Your task to perform on an android device: turn on the 12-hour format for clock Image 0: 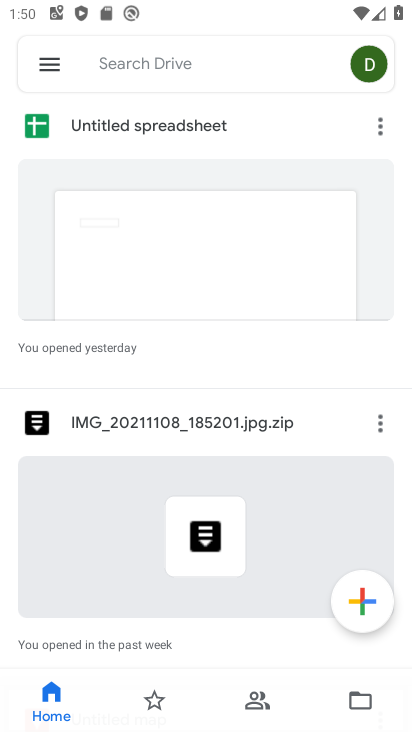
Step 0: press home button
Your task to perform on an android device: turn on the 12-hour format for clock Image 1: 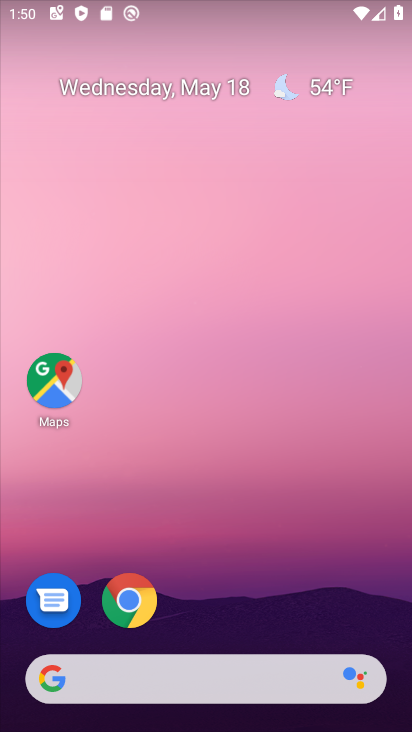
Step 1: drag from (241, 630) to (173, 153)
Your task to perform on an android device: turn on the 12-hour format for clock Image 2: 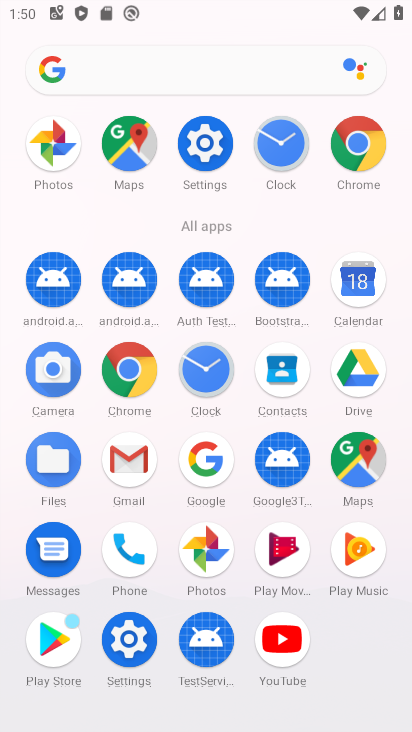
Step 2: click (265, 165)
Your task to perform on an android device: turn on the 12-hour format for clock Image 3: 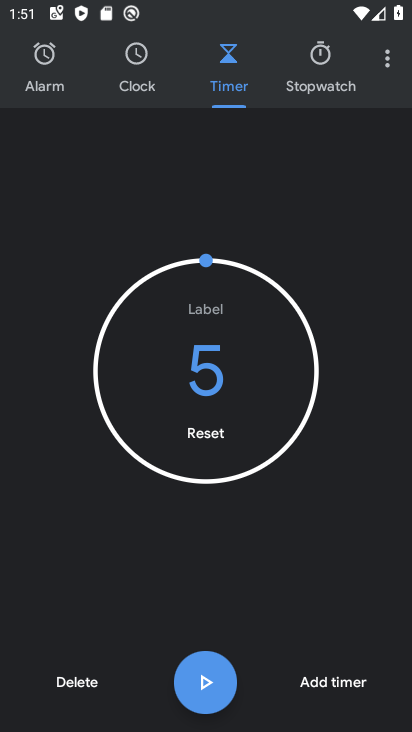
Step 3: click (377, 60)
Your task to perform on an android device: turn on the 12-hour format for clock Image 4: 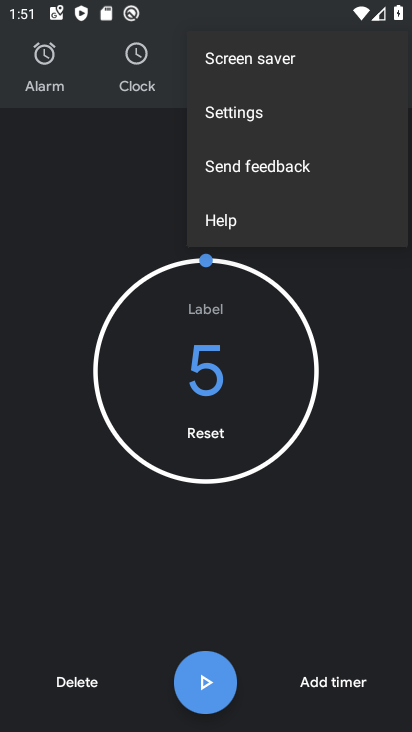
Step 4: click (245, 119)
Your task to perform on an android device: turn on the 12-hour format for clock Image 5: 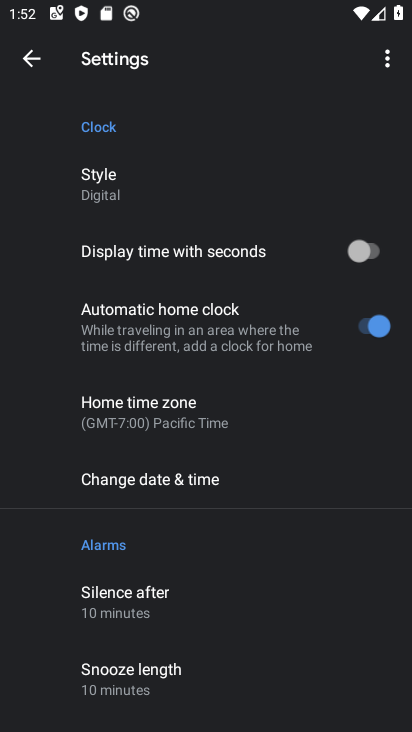
Step 5: task complete